Your task to perform on an android device: Go to Maps Image 0: 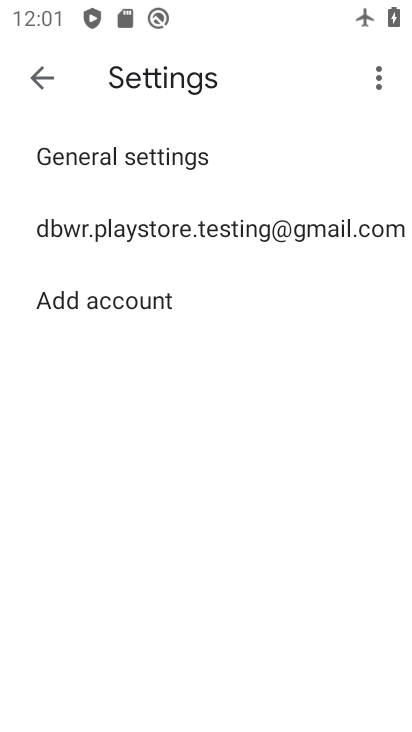
Step 0: press home button
Your task to perform on an android device: Go to Maps Image 1: 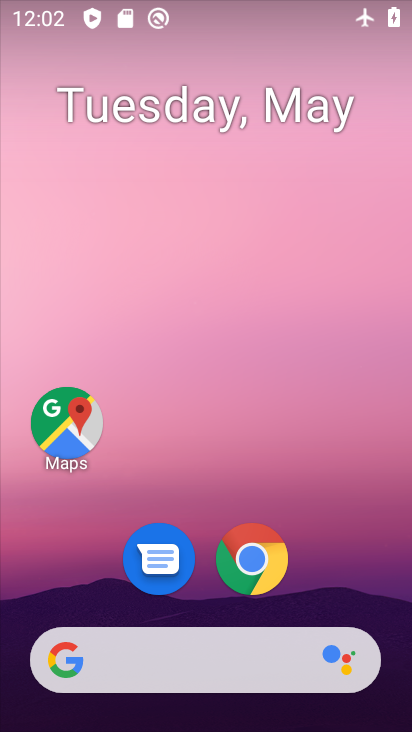
Step 1: click (60, 450)
Your task to perform on an android device: Go to Maps Image 2: 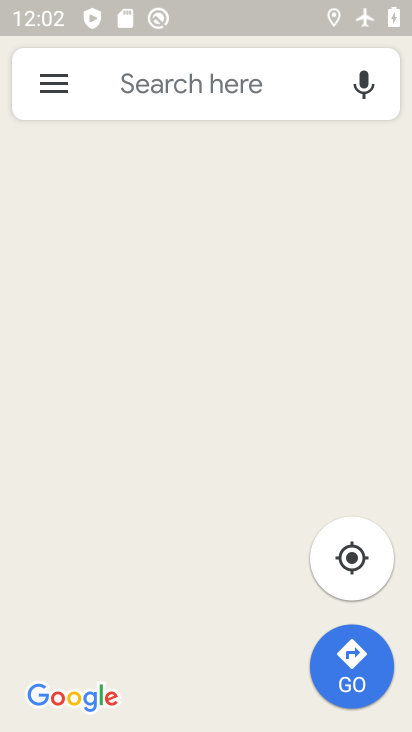
Step 2: task complete